Your task to perform on an android device: Go to calendar. Show me events next week Image 0: 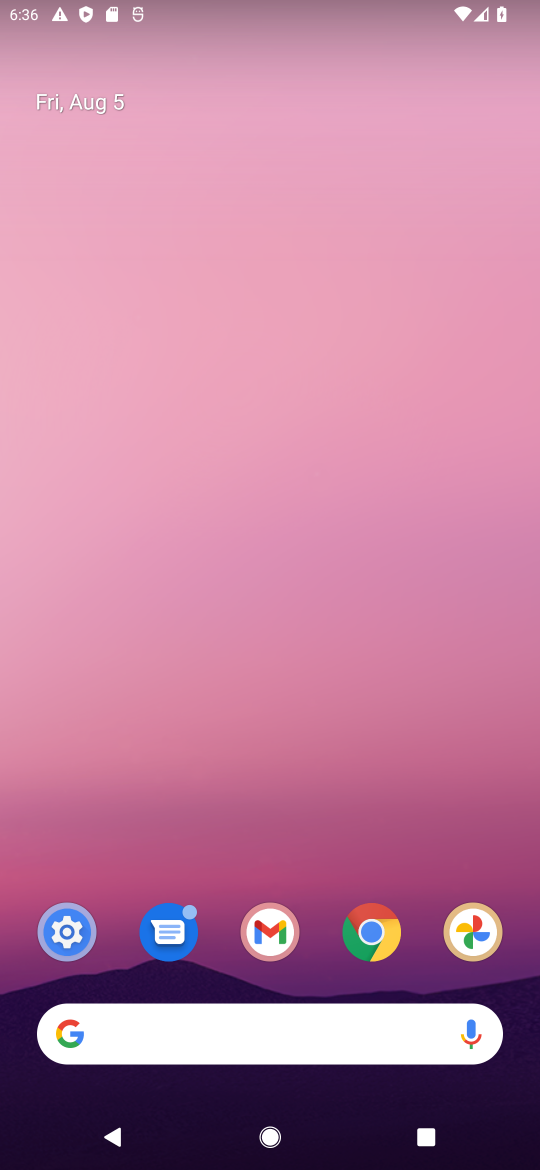
Step 0: drag from (235, 1039) to (203, 191)
Your task to perform on an android device: Go to calendar. Show me events next week Image 1: 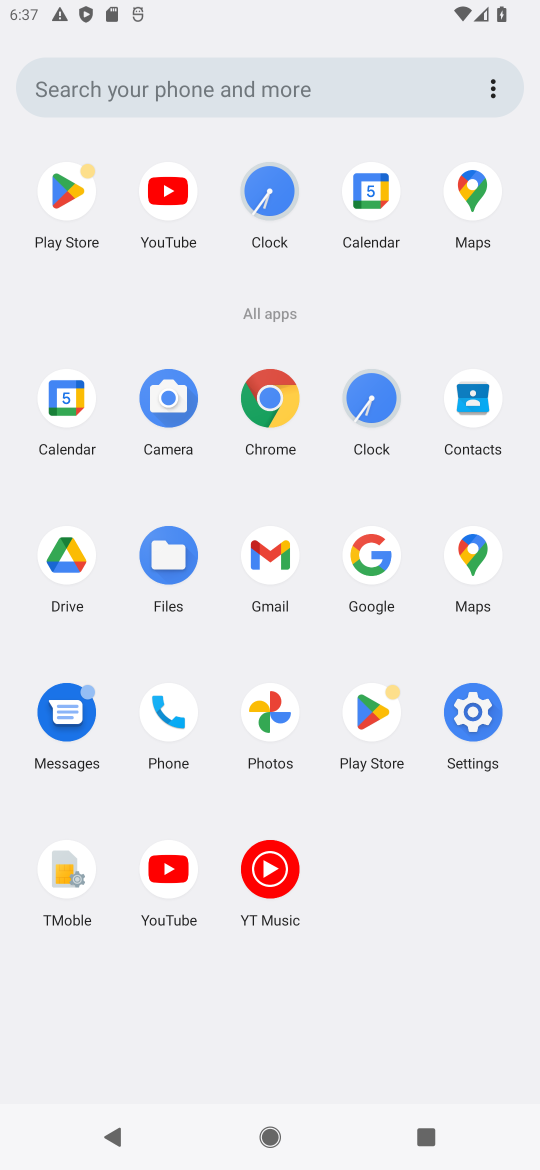
Step 1: click (68, 400)
Your task to perform on an android device: Go to calendar. Show me events next week Image 2: 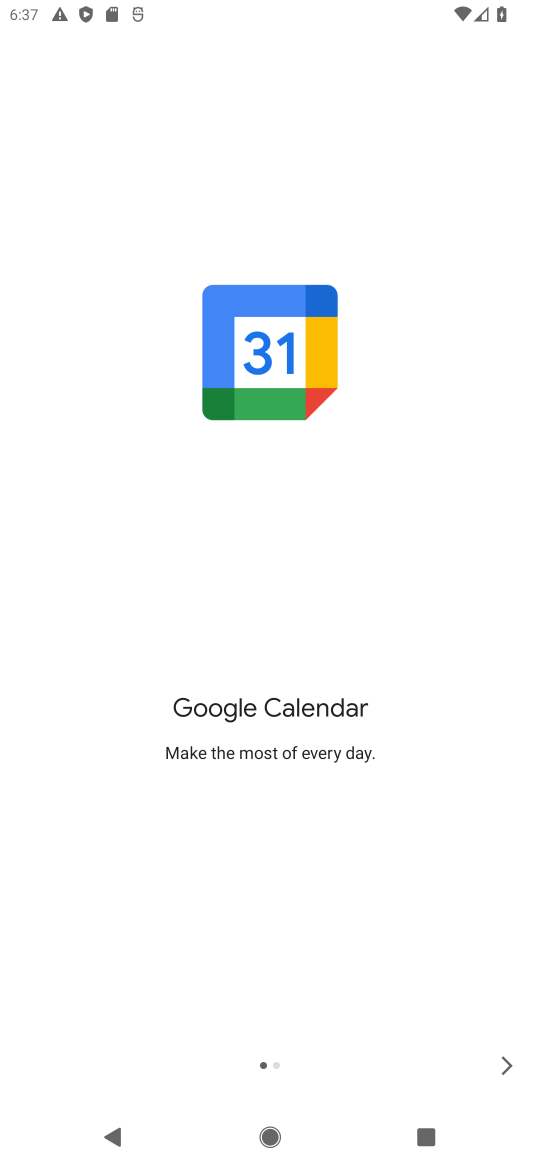
Step 2: click (508, 1060)
Your task to perform on an android device: Go to calendar. Show me events next week Image 3: 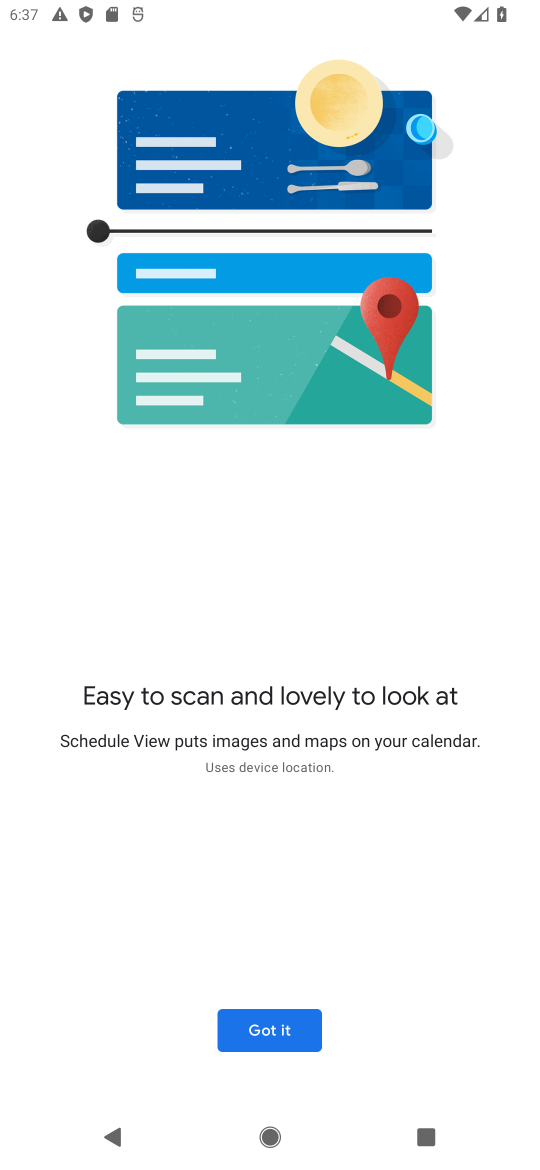
Step 3: click (266, 1023)
Your task to perform on an android device: Go to calendar. Show me events next week Image 4: 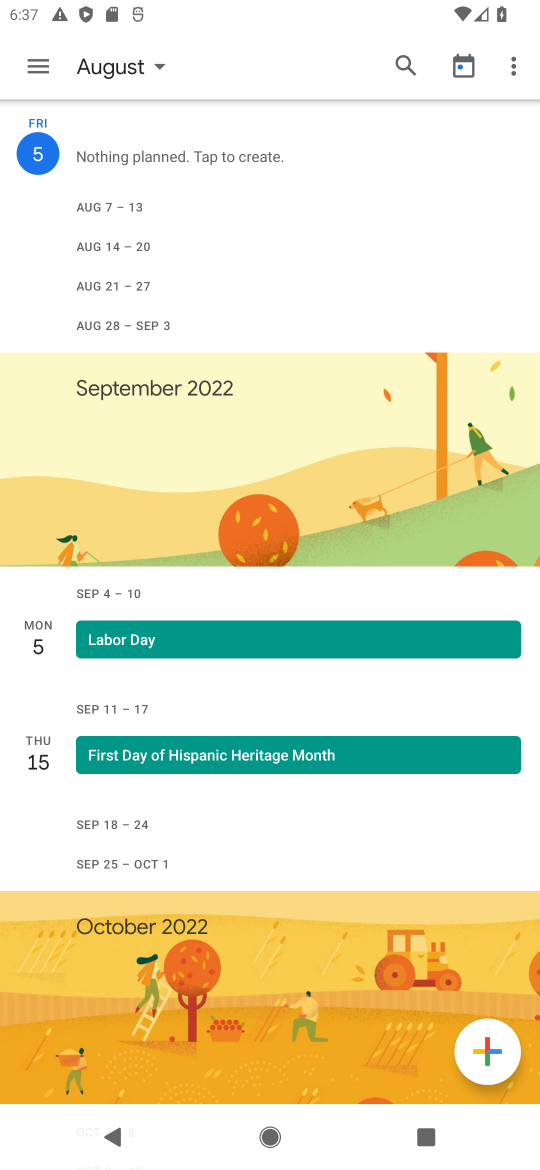
Step 4: click (160, 64)
Your task to perform on an android device: Go to calendar. Show me events next week Image 5: 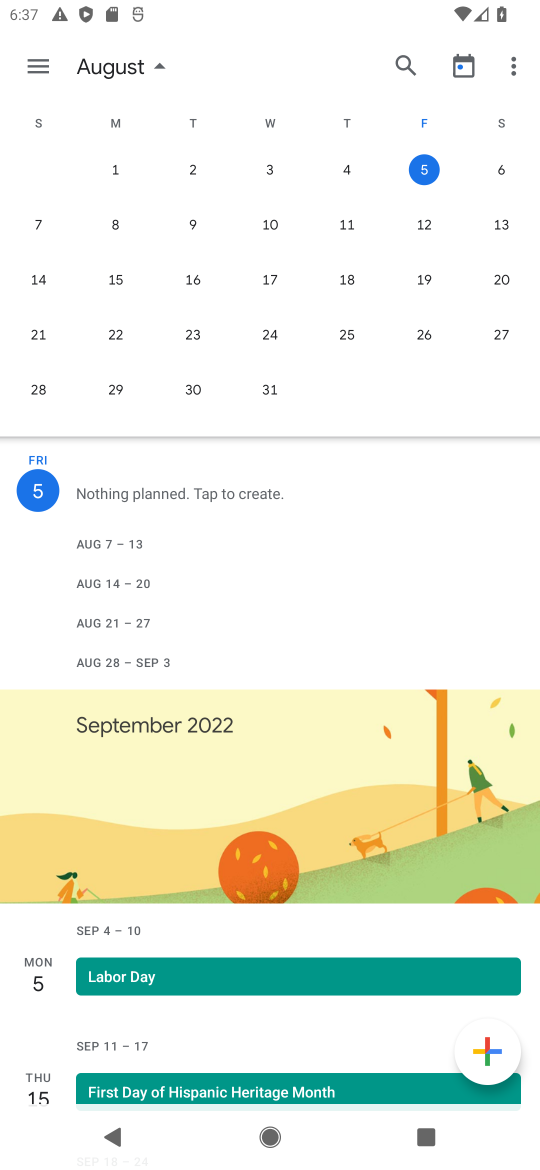
Step 5: click (121, 235)
Your task to perform on an android device: Go to calendar. Show me events next week Image 6: 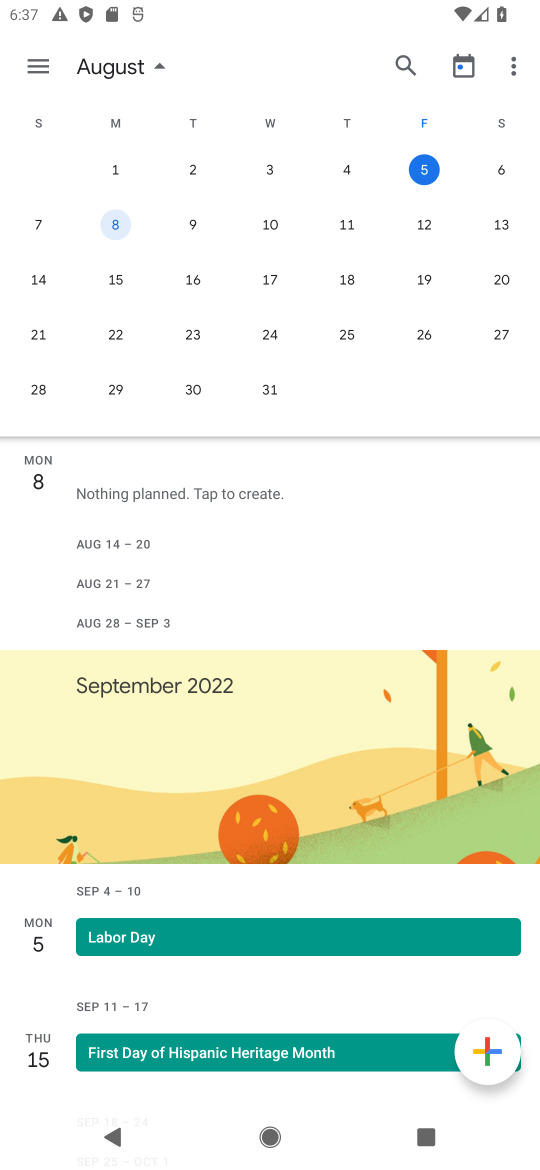
Step 6: click (184, 497)
Your task to perform on an android device: Go to calendar. Show me events next week Image 7: 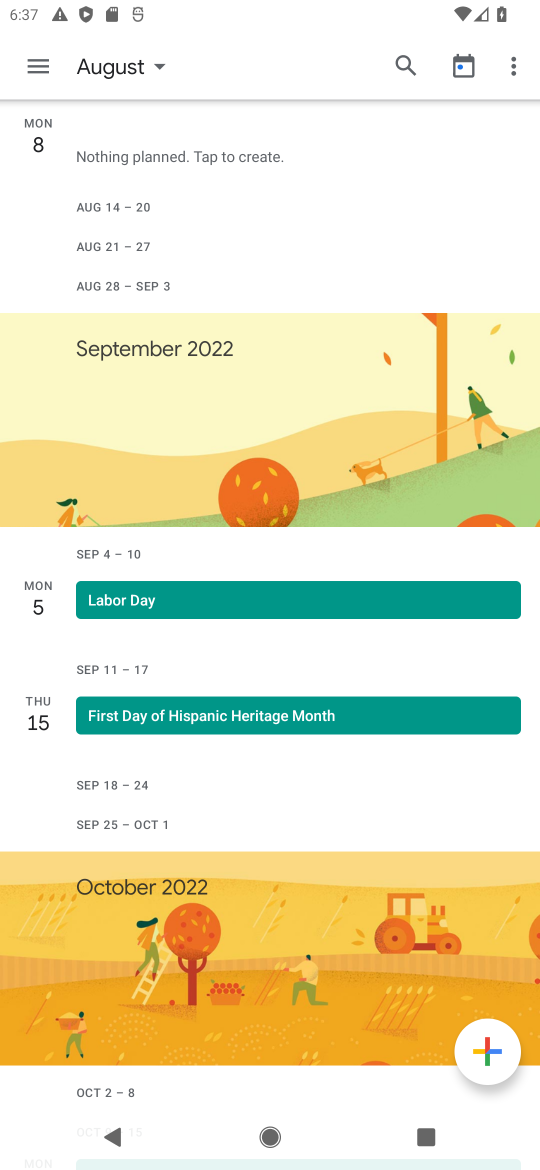
Step 7: click (272, 160)
Your task to perform on an android device: Go to calendar. Show me events next week Image 8: 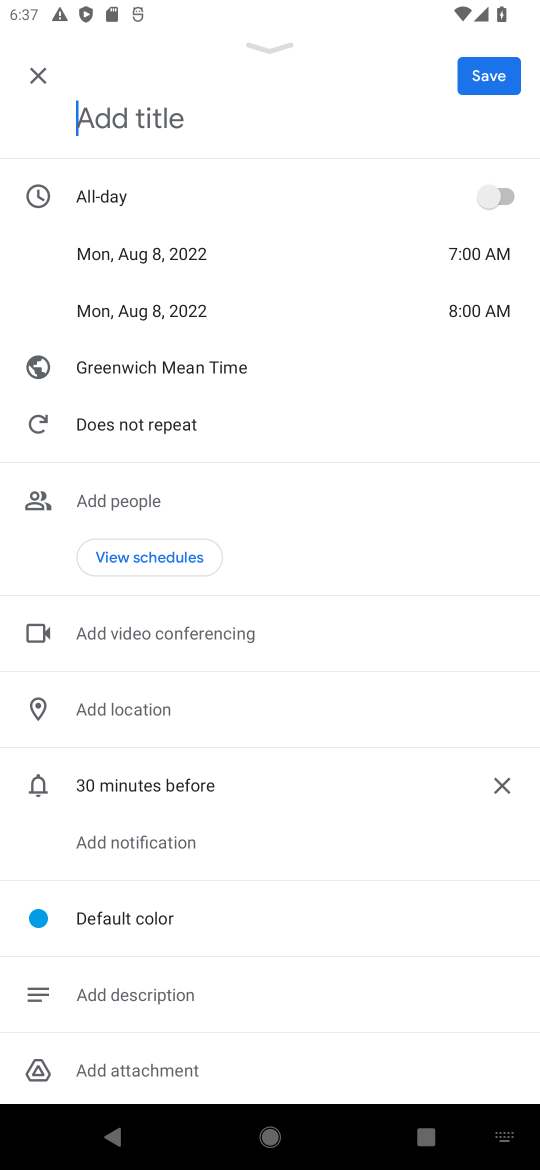
Step 8: type "Mahotsav"
Your task to perform on an android device: Go to calendar. Show me events next week Image 9: 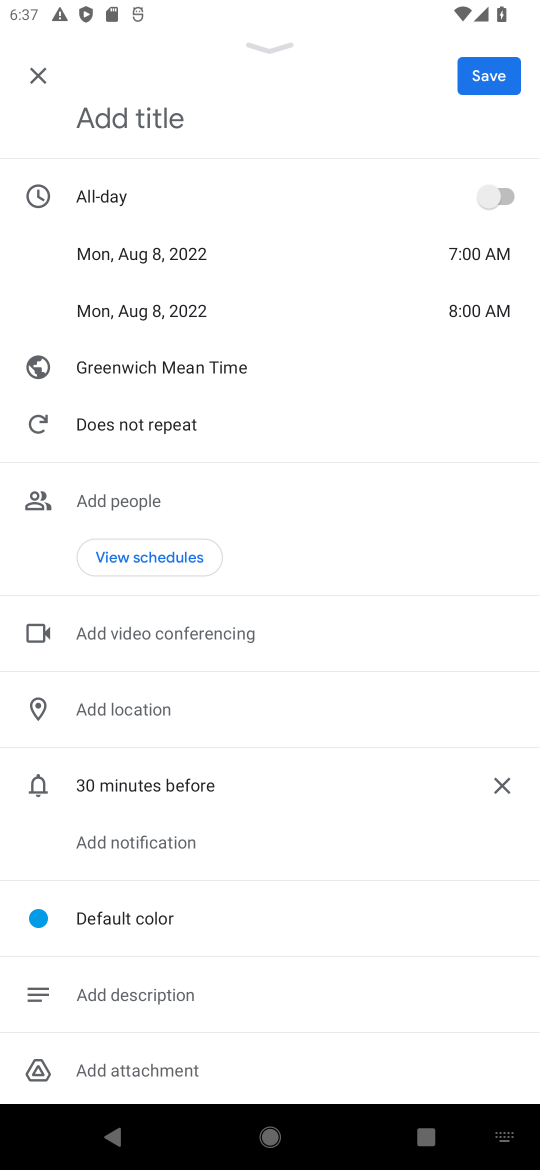
Step 9: click (496, 199)
Your task to perform on an android device: Go to calendar. Show me events next week Image 10: 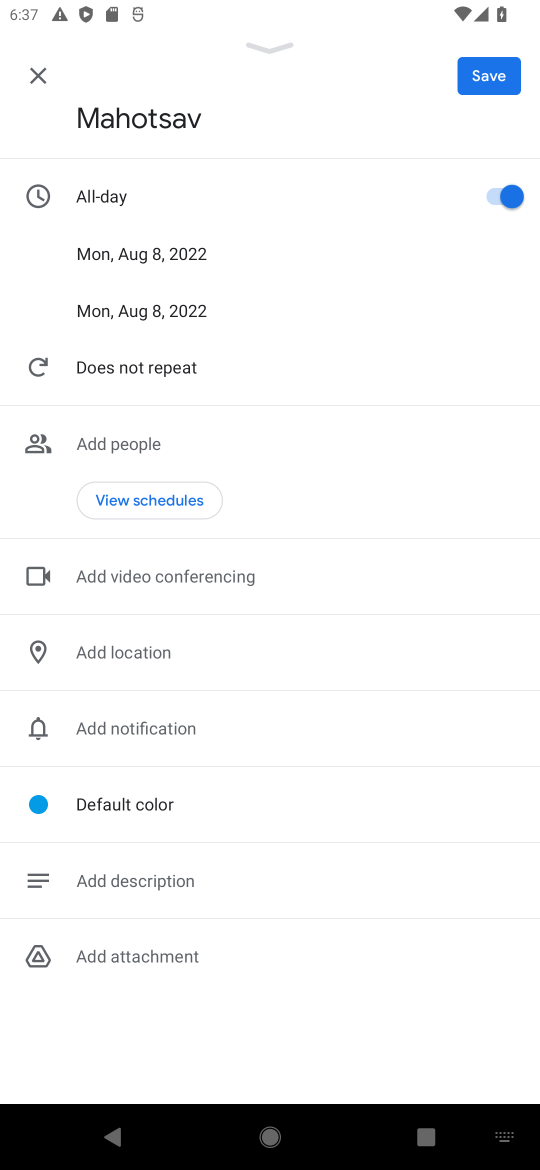
Step 10: click (487, 83)
Your task to perform on an android device: Go to calendar. Show me events next week Image 11: 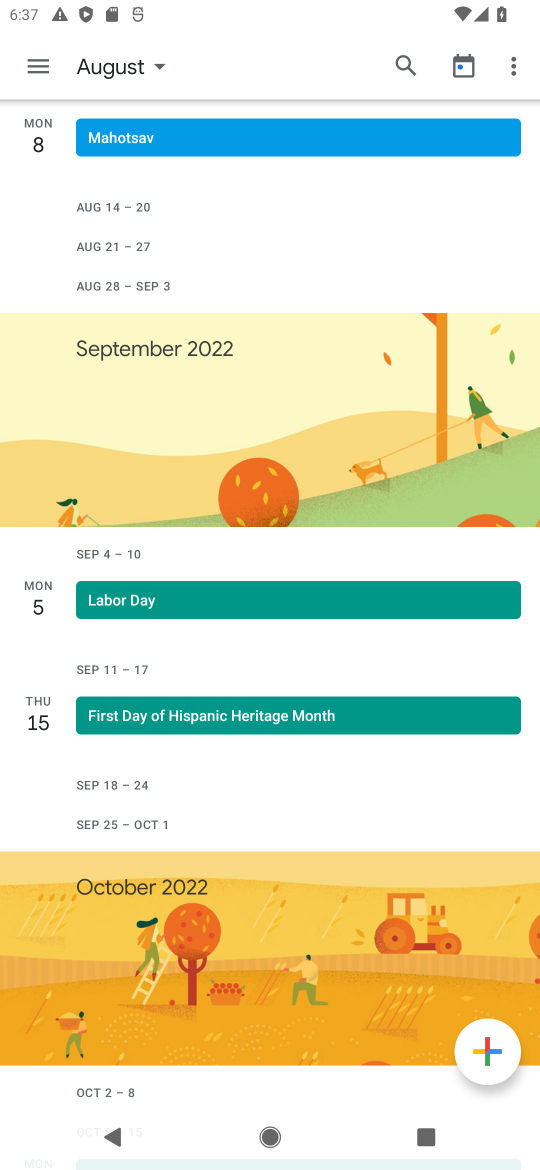
Step 11: task complete